Your task to perform on an android device: What's the weather today? Image 0: 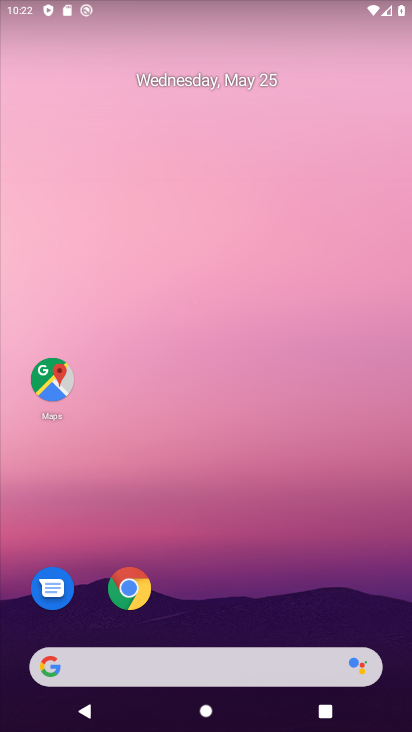
Step 0: drag from (19, 241) to (303, 298)
Your task to perform on an android device: What's the weather today? Image 1: 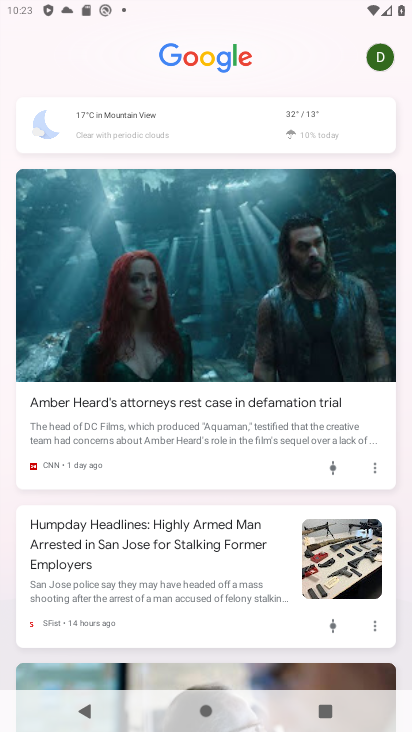
Step 1: click (273, 118)
Your task to perform on an android device: What's the weather today? Image 2: 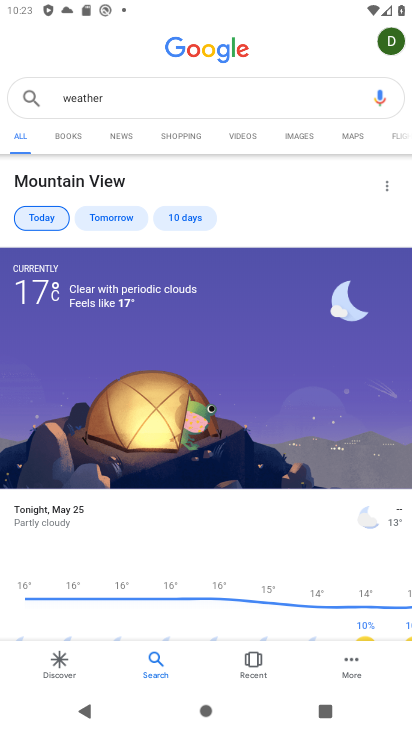
Step 2: task complete